Your task to perform on an android device: What's the weather going to be this weekend? Image 0: 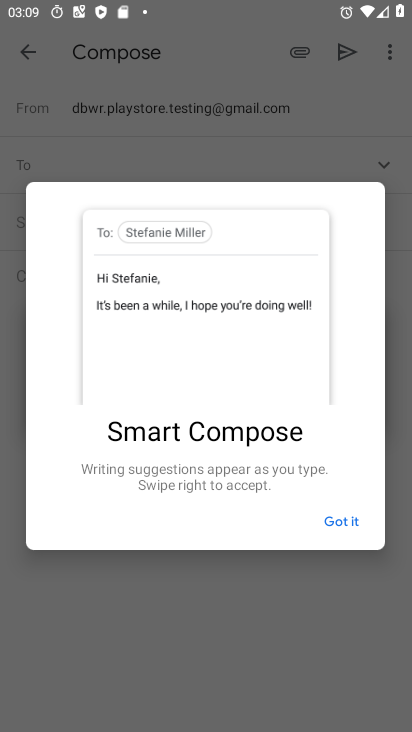
Step 0: press home button
Your task to perform on an android device: What's the weather going to be this weekend? Image 1: 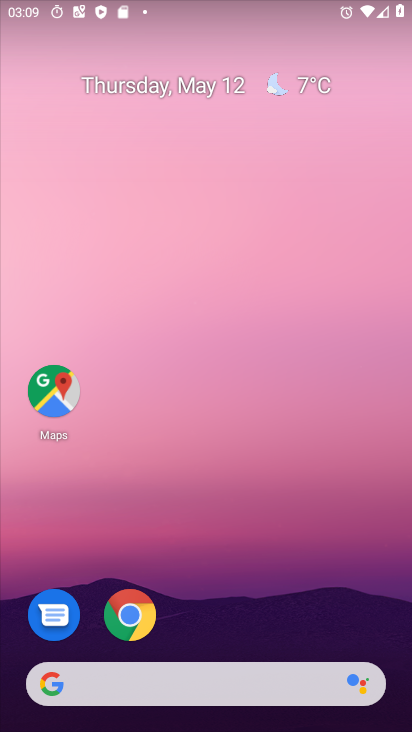
Step 1: click (287, 93)
Your task to perform on an android device: What's the weather going to be this weekend? Image 2: 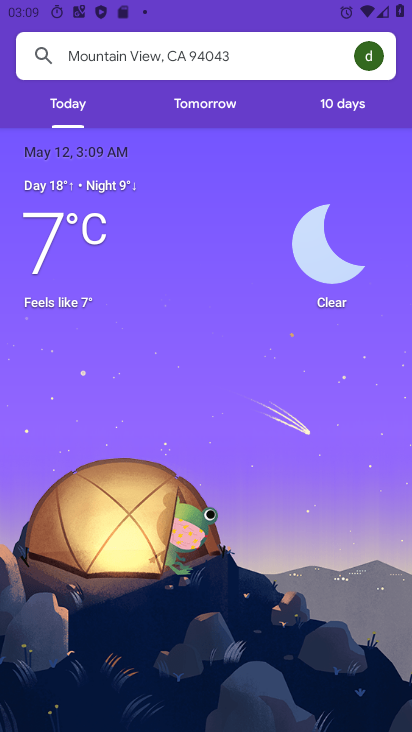
Step 2: click (338, 111)
Your task to perform on an android device: What's the weather going to be this weekend? Image 3: 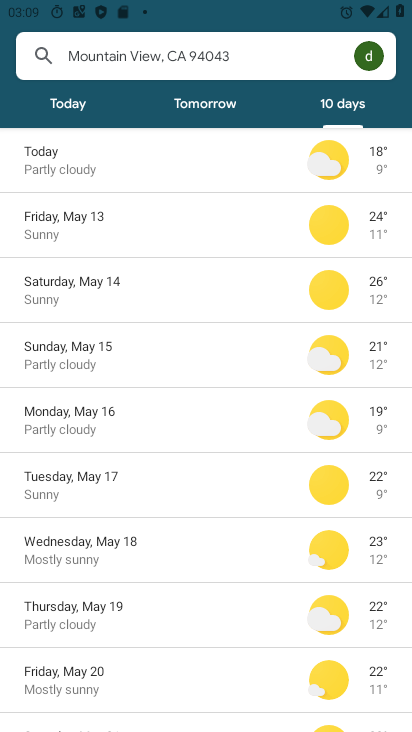
Step 3: task complete